Your task to perform on an android device: Open Google Chrome and click the shortcut for Amazon.com Image 0: 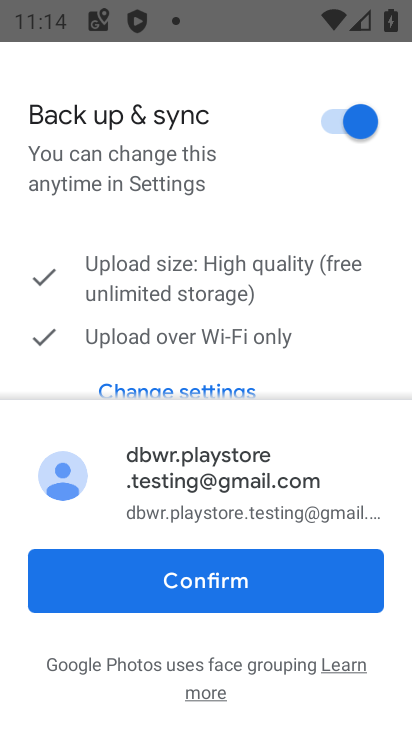
Step 0: press home button
Your task to perform on an android device: Open Google Chrome and click the shortcut for Amazon.com Image 1: 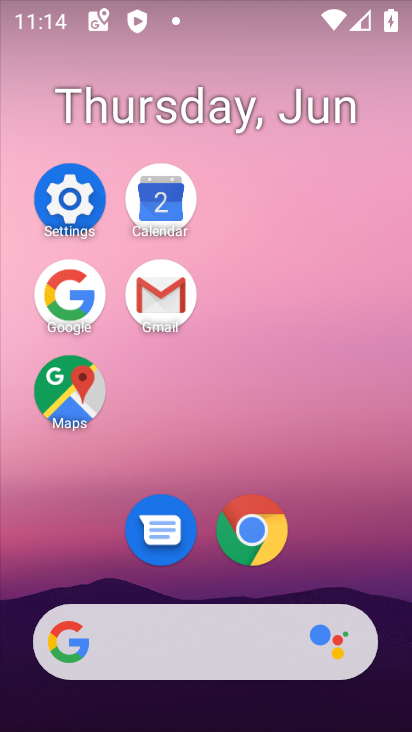
Step 1: click (242, 555)
Your task to perform on an android device: Open Google Chrome and click the shortcut for Amazon.com Image 2: 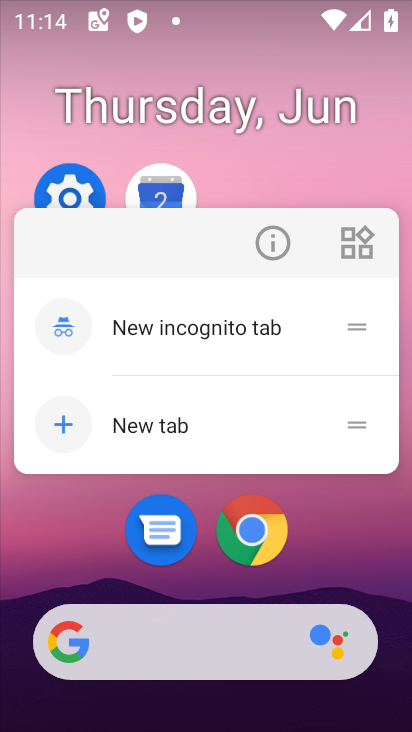
Step 2: click (259, 524)
Your task to perform on an android device: Open Google Chrome and click the shortcut for Amazon.com Image 3: 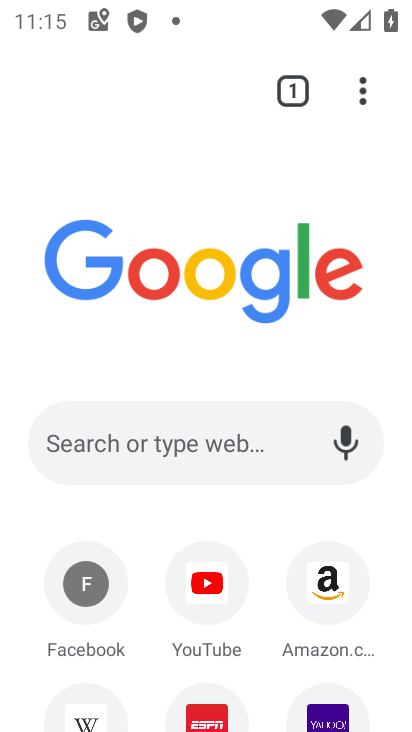
Step 3: click (334, 578)
Your task to perform on an android device: Open Google Chrome and click the shortcut for Amazon.com Image 4: 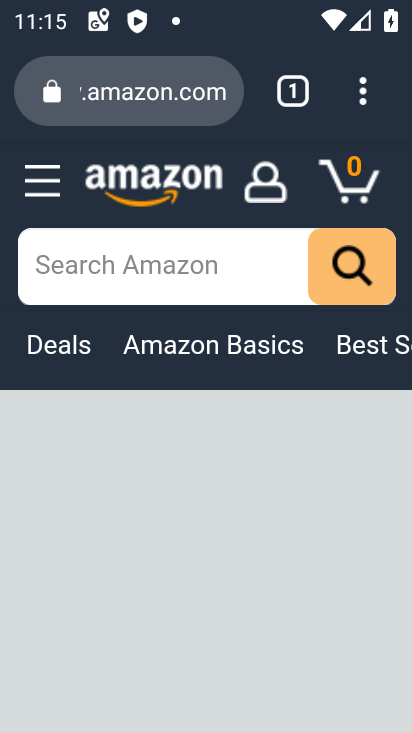
Step 4: click (363, 102)
Your task to perform on an android device: Open Google Chrome and click the shortcut for Amazon.com Image 5: 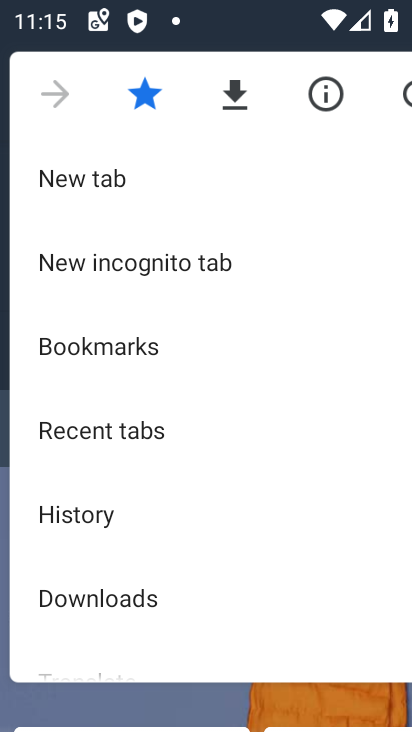
Step 5: drag from (264, 475) to (308, 154)
Your task to perform on an android device: Open Google Chrome and click the shortcut for Amazon.com Image 6: 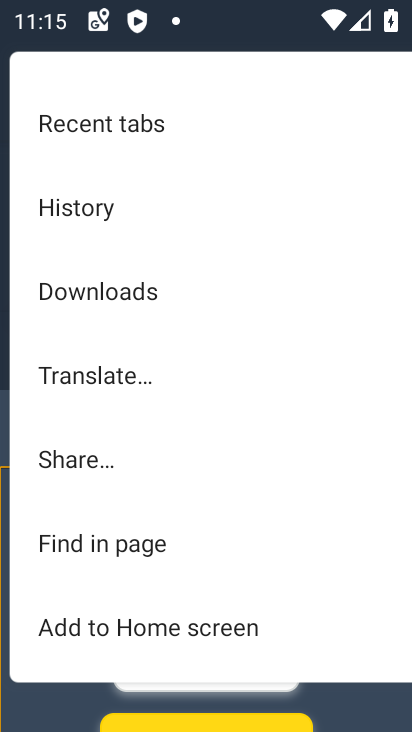
Step 6: drag from (186, 530) to (250, 305)
Your task to perform on an android device: Open Google Chrome and click the shortcut for Amazon.com Image 7: 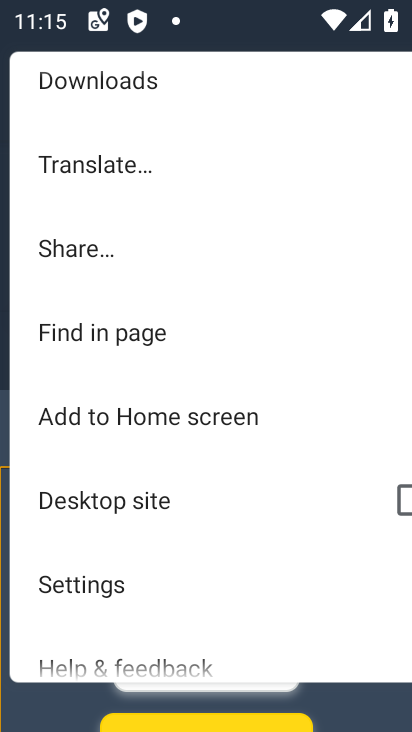
Step 7: click (226, 396)
Your task to perform on an android device: Open Google Chrome and click the shortcut for Amazon.com Image 8: 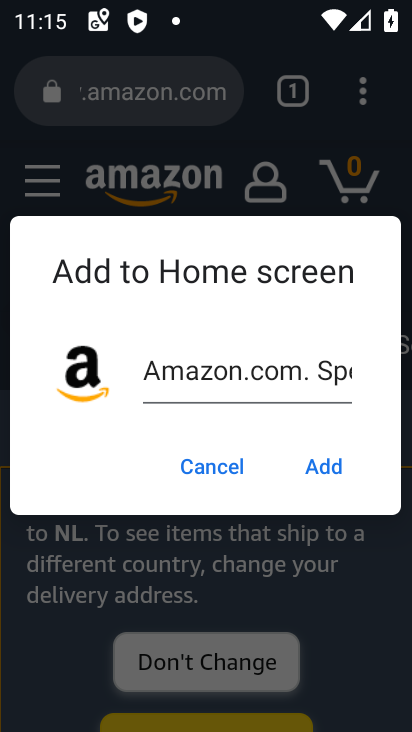
Step 8: click (341, 453)
Your task to perform on an android device: Open Google Chrome and click the shortcut for Amazon.com Image 9: 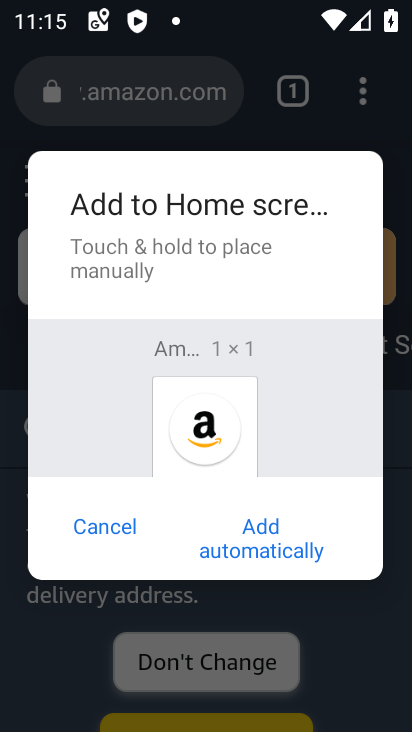
Step 9: click (290, 541)
Your task to perform on an android device: Open Google Chrome and click the shortcut for Amazon.com Image 10: 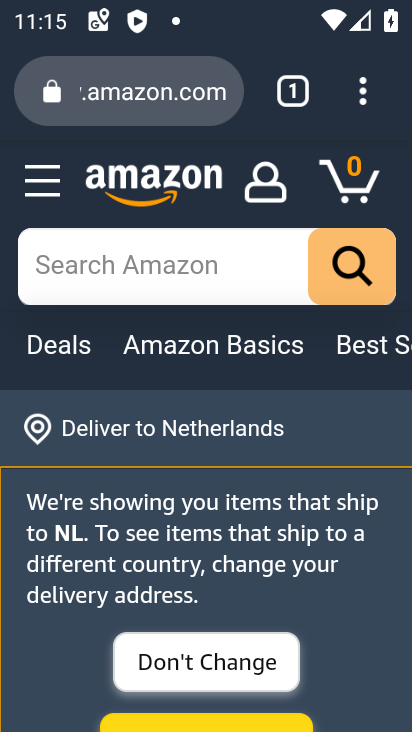
Step 10: task complete